Your task to perform on an android device: turn pop-ups on in chrome Image 0: 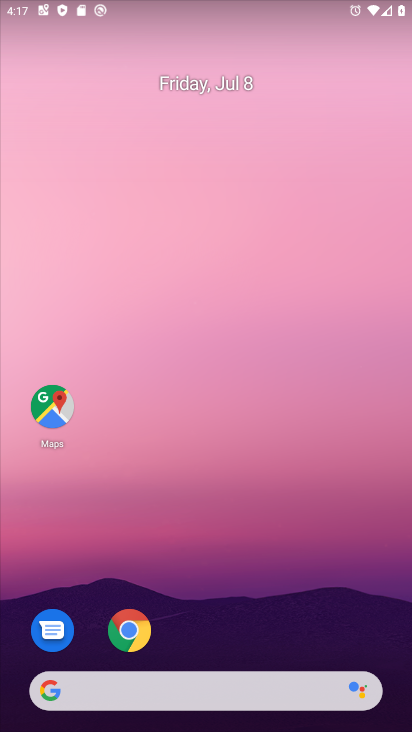
Step 0: click (131, 628)
Your task to perform on an android device: turn pop-ups on in chrome Image 1: 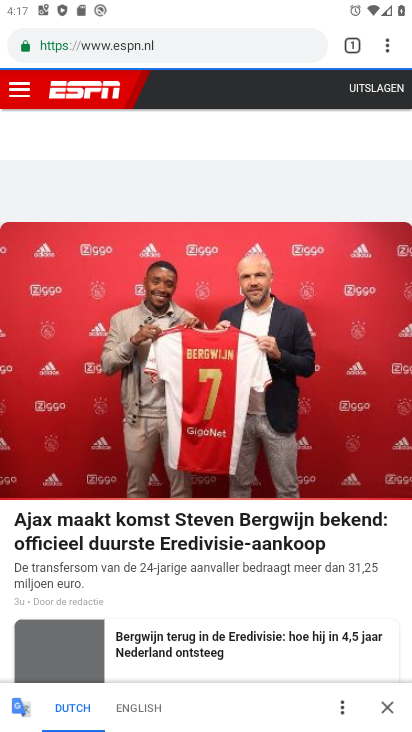
Step 1: click (388, 47)
Your task to perform on an android device: turn pop-ups on in chrome Image 2: 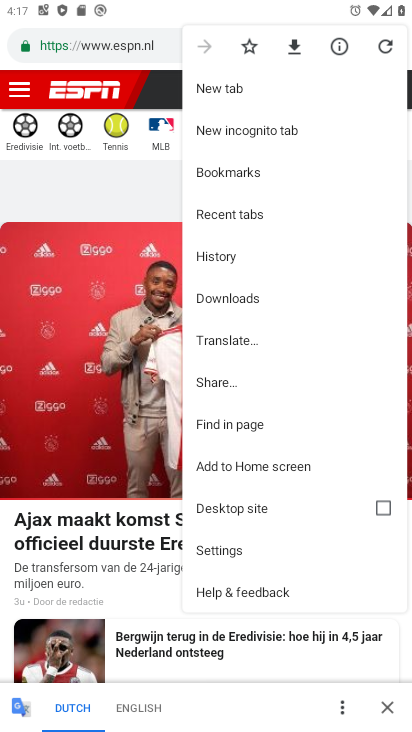
Step 2: click (223, 547)
Your task to perform on an android device: turn pop-ups on in chrome Image 3: 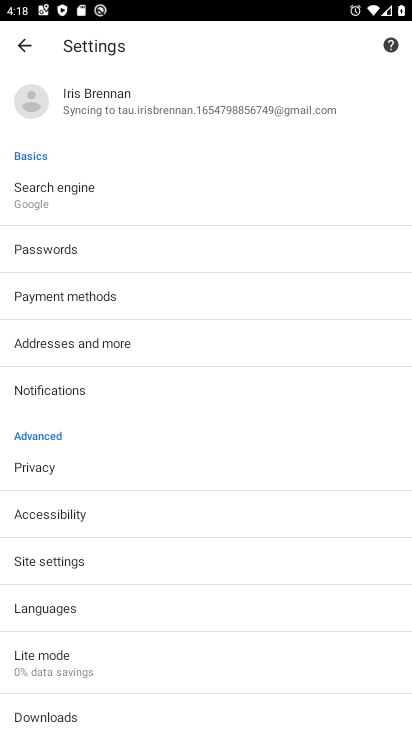
Step 3: click (61, 557)
Your task to perform on an android device: turn pop-ups on in chrome Image 4: 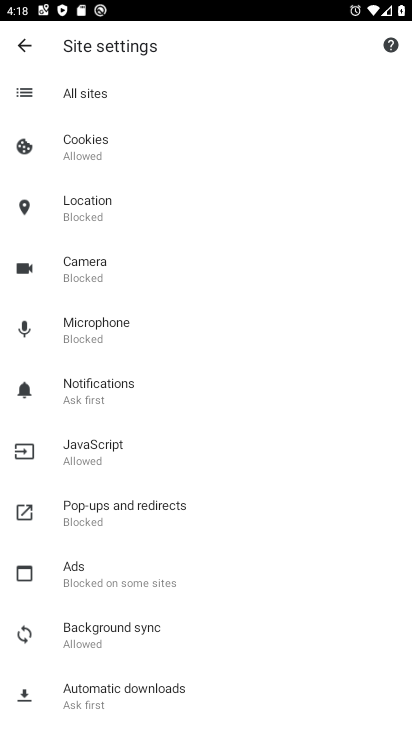
Step 4: click (119, 513)
Your task to perform on an android device: turn pop-ups on in chrome Image 5: 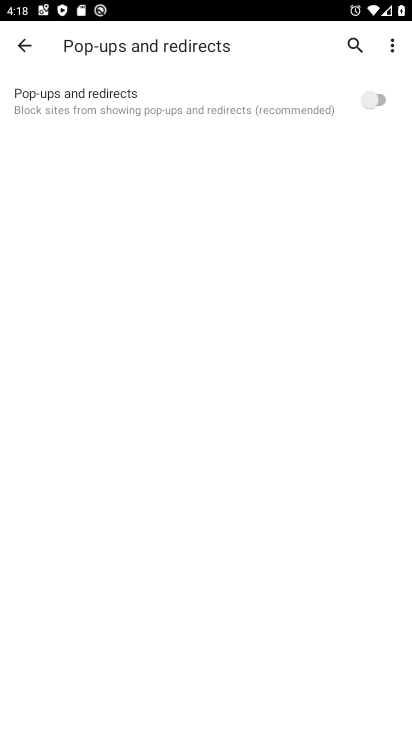
Step 5: click (368, 102)
Your task to perform on an android device: turn pop-ups on in chrome Image 6: 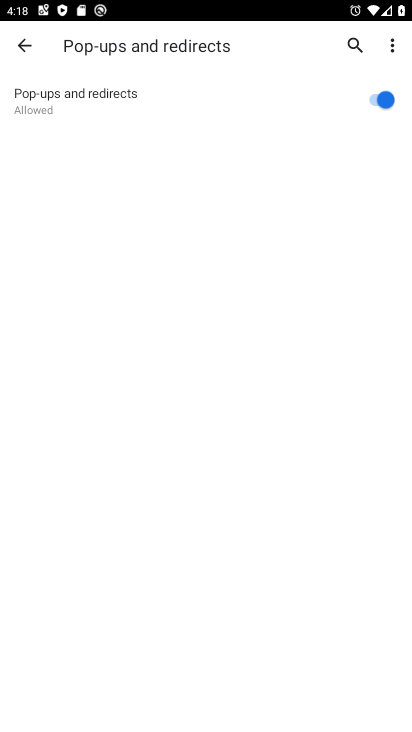
Step 6: task complete